Your task to perform on an android device: What is the recent news? Image 0: 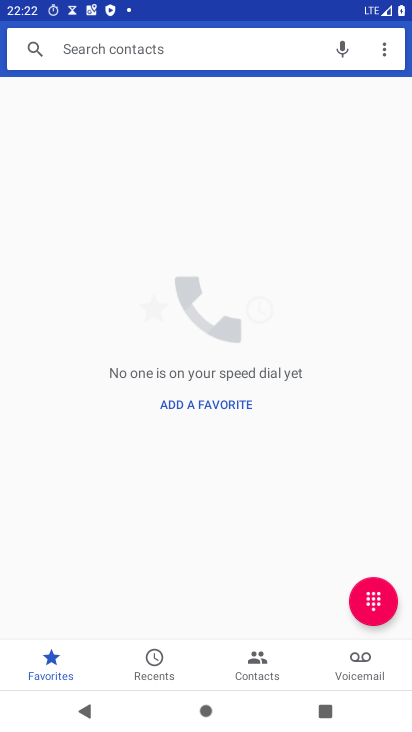
Step 0: press back button
Your task to perform on an android device: What is the recent news? Image 1: 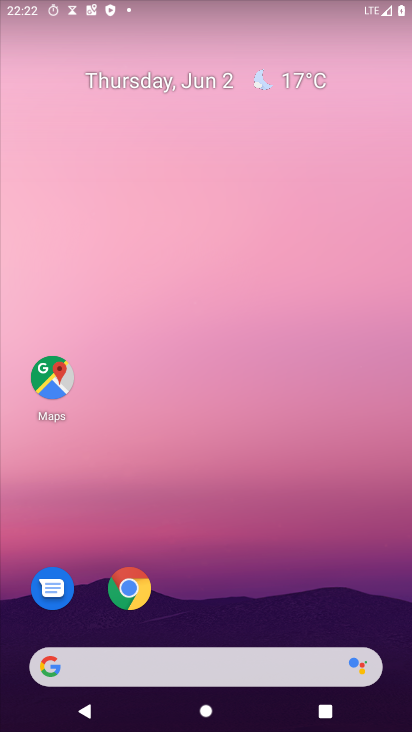
Step 1: click (169, 665)
Your task to perform on an android device: What is the recent news? Image 2: 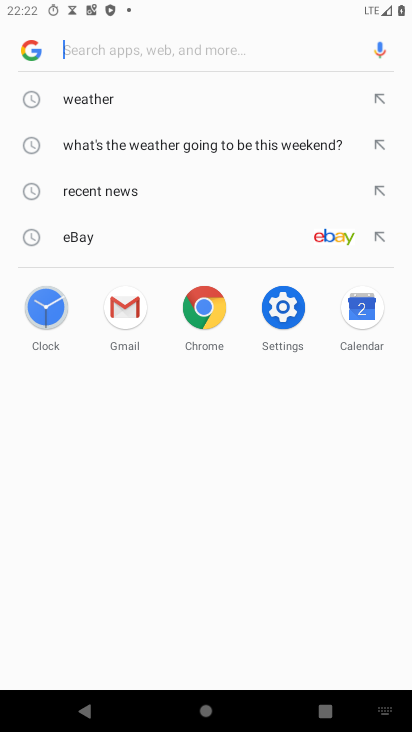
Step 2: click (119, 184)
Your task to perform on an android device: What is the recent news? Image 3: 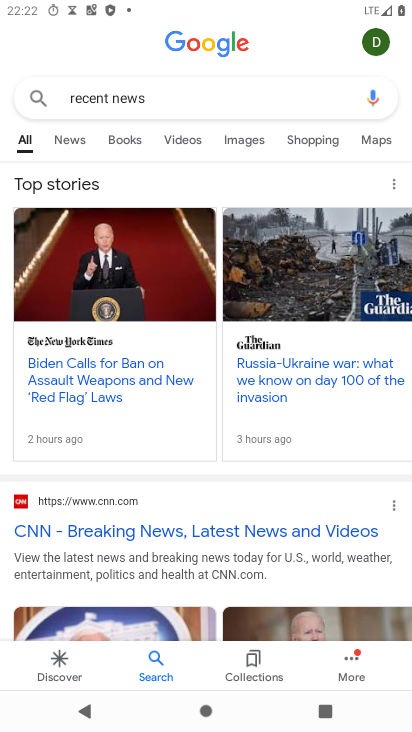
Step 3: task complete